Your task to perform on an android device: open chrome privacy settings Image 0: 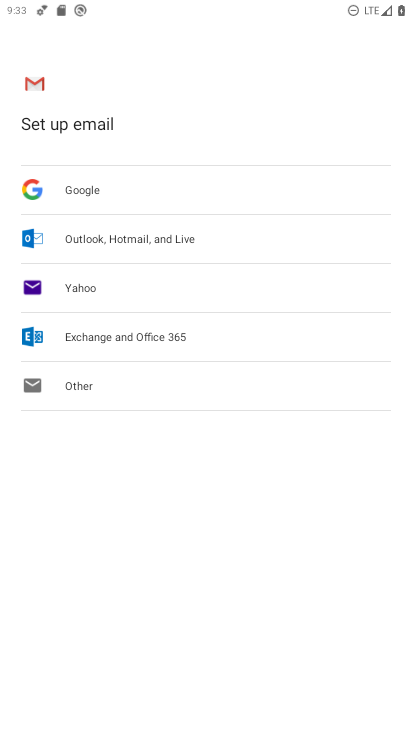
Step 0: click (177, 679)
Your task to perform on an android device: open chrome privacy settings Image 1: 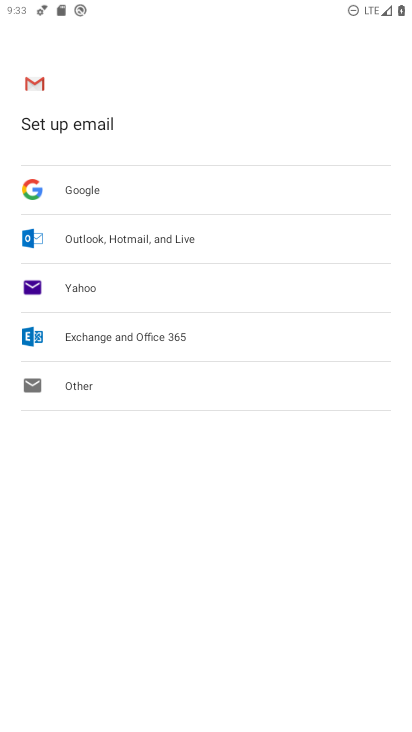
Step 1: press home button
Your task to perform on an android device: open chrome privacy settings Image 2: 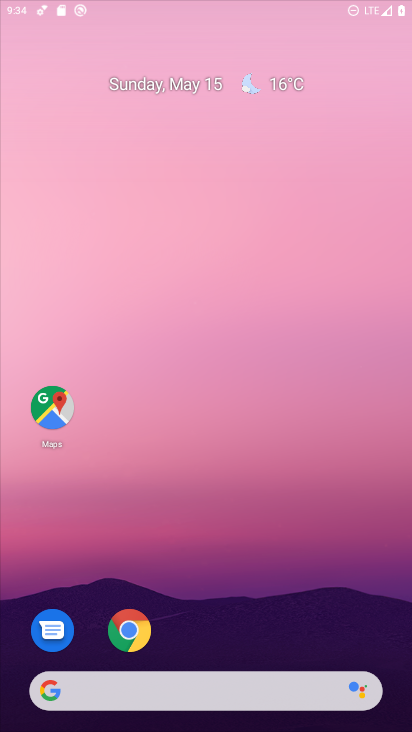
Step 2: drag from (185, 694) to (299, 251)
Your task to perform on an android device: open chrome privacy settings Image 3: 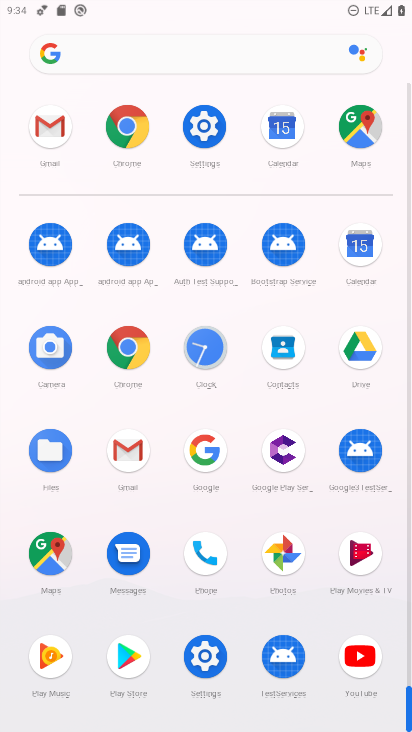
Step 3: click (130, 111)
Your task to perform on an android device: open chrome privacy settings Image 4: 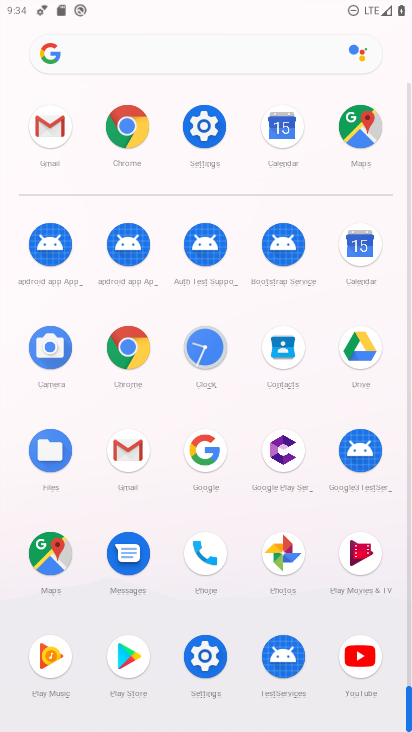
Step 4: click (130, 110)
Your task to perform on an android device: open chrome privacy settings Image 5: 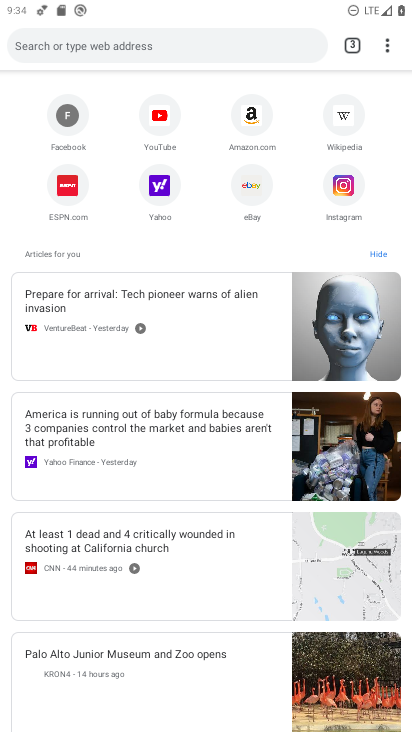
Step 5: click (383, 39)
Your task to perform on an android device: open chrome privacy settings Image 6: 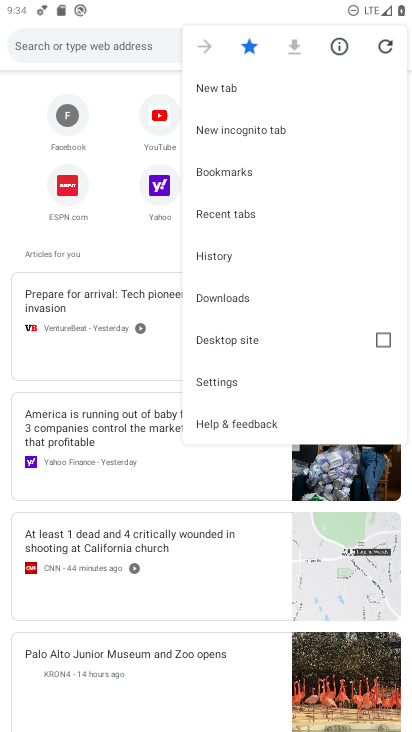
Step 6: click (279, 377)
Your task to perform on an android device: open chrome privacy settings Image 7: 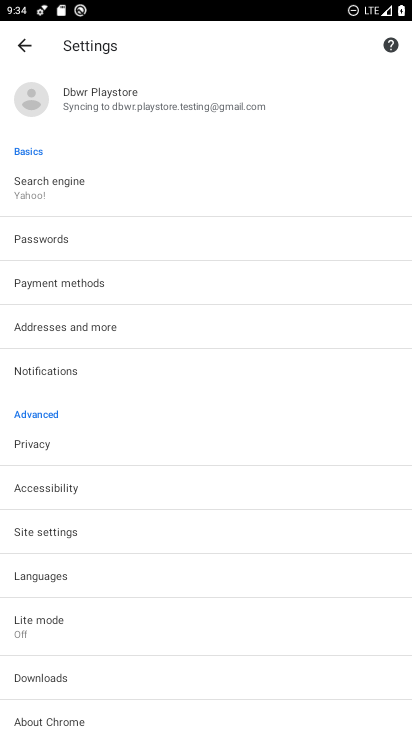
Step 7: click (43, 455)
Your task to perform on an android device: open chrome privacy settings Image 8: 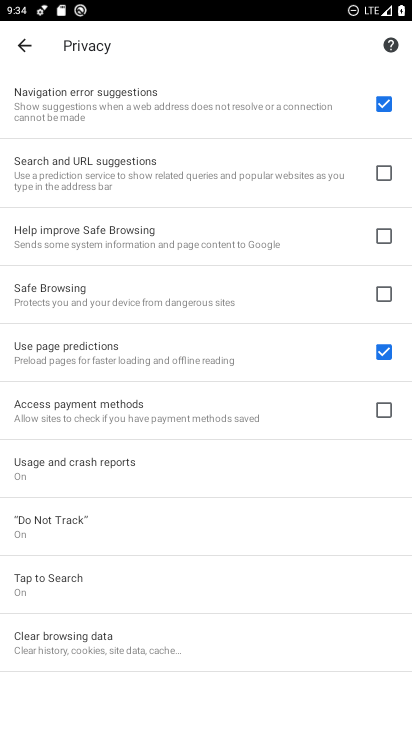
Step 8: task complete